Your task to perform on an android device: Toggle the flashlight Image 0: 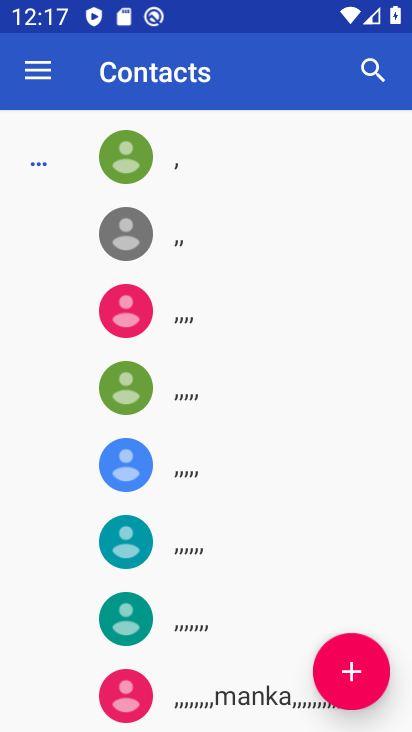
Step 0: press home button
Your task to perform on an android device: Toggle the flashlight Image 1: 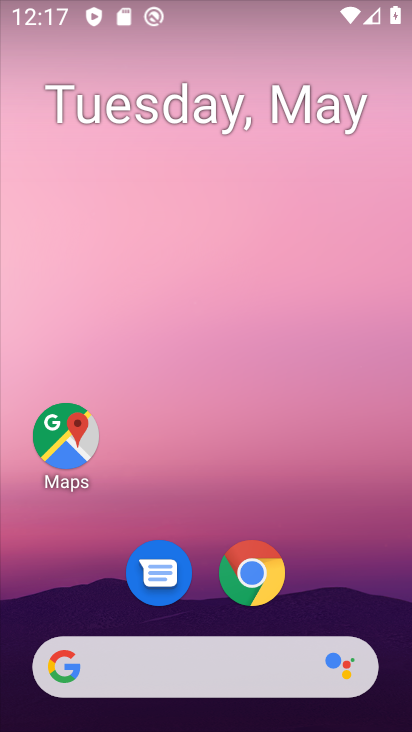
Step 1: drag from (330, 572) to (289, 27)
Your task to perform on an android device: Toggle the flashlight Image 2: 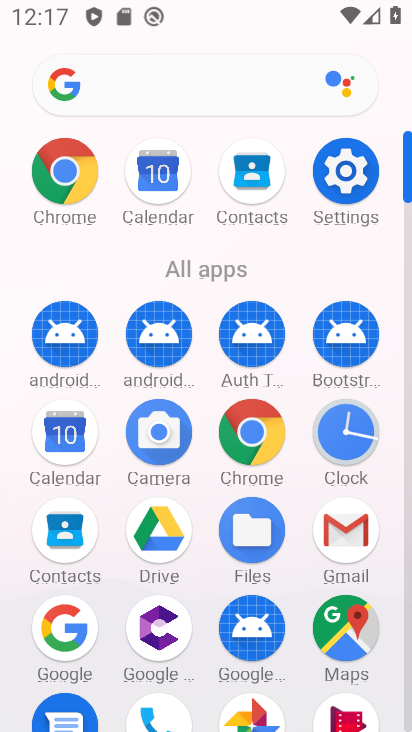
Step 2: click (339, 184)
Your task to perform on an android device: Toggle the flashlight Image 3: 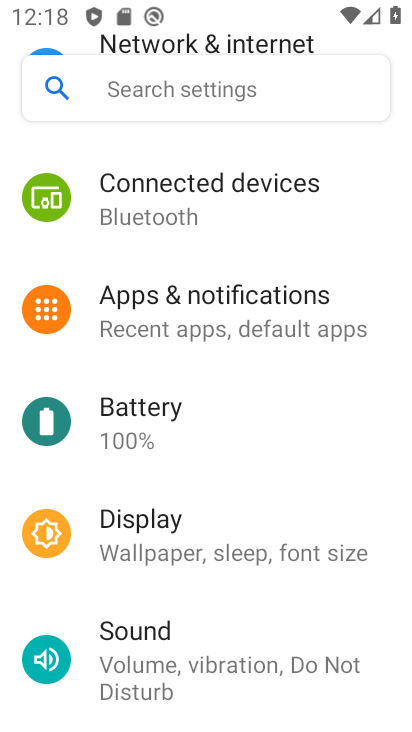
Step 3: task complete